Your task to perform on an android device: change your default location settings in chrome Image 0: 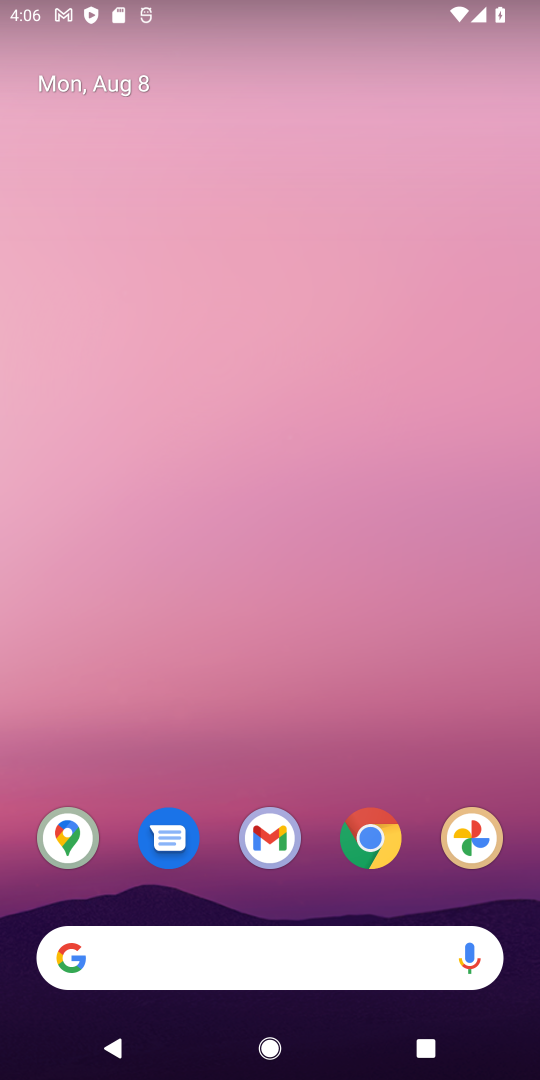
Step 0: click (370, 838)
Your task to perform on an android device: change your default location settings in chrome Image 1: 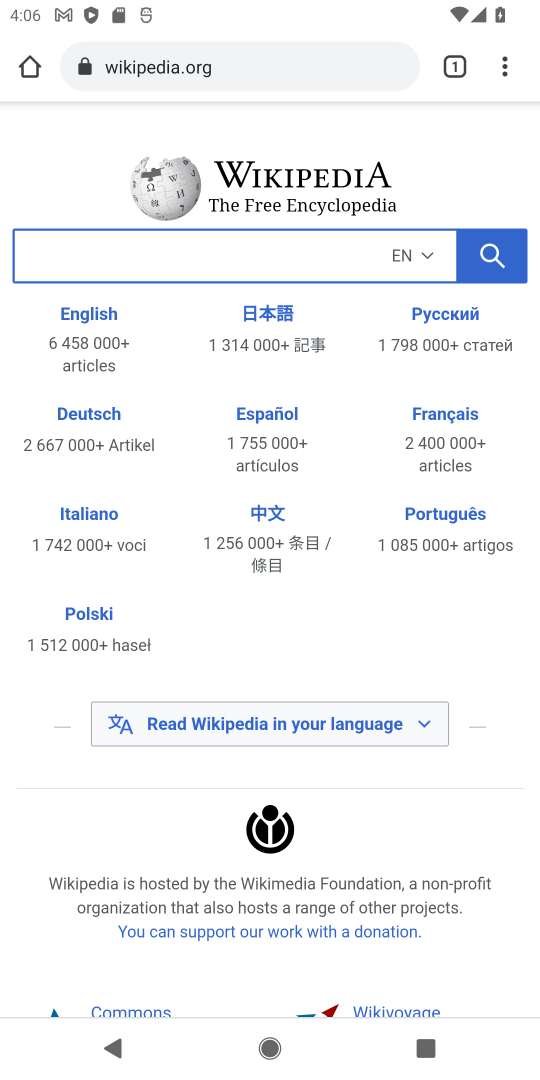
Step 1: click (507, 67)
Your task to perform on an android device: change your default location settings in chrome Image 2: 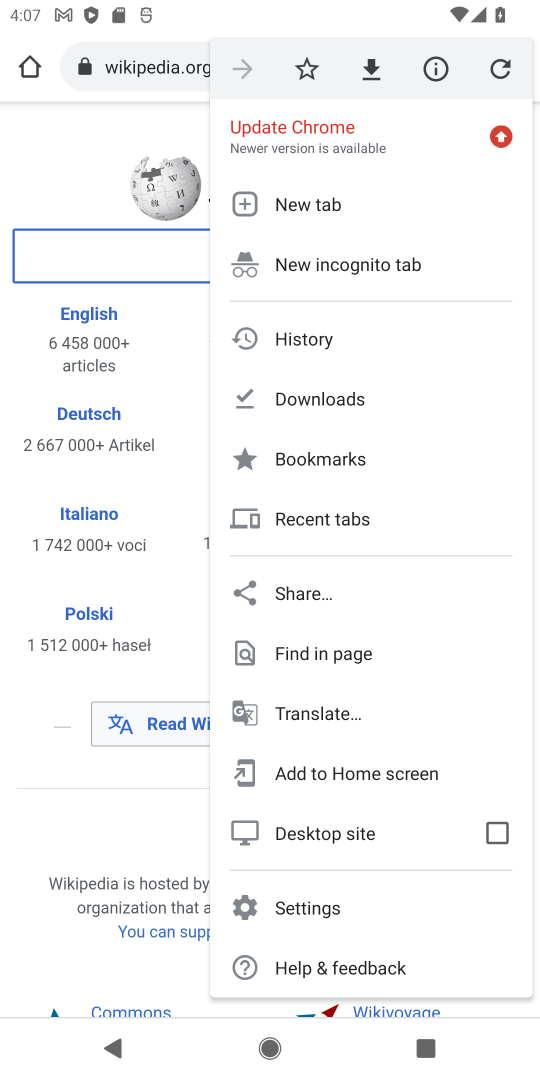
Step 2: click (306, 912)
Your task to perform on an android device: change your default location settings in chrome Image 3: 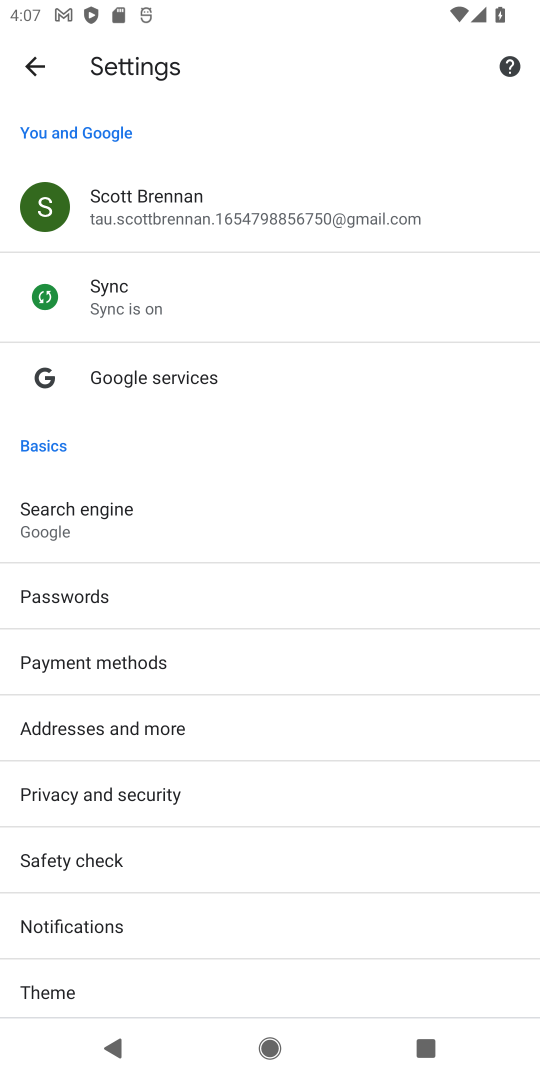
Step 3: drag from (129, 773) to (171, 682)
Your task to perform on an android device: change your default location settings in chrome Image 4: 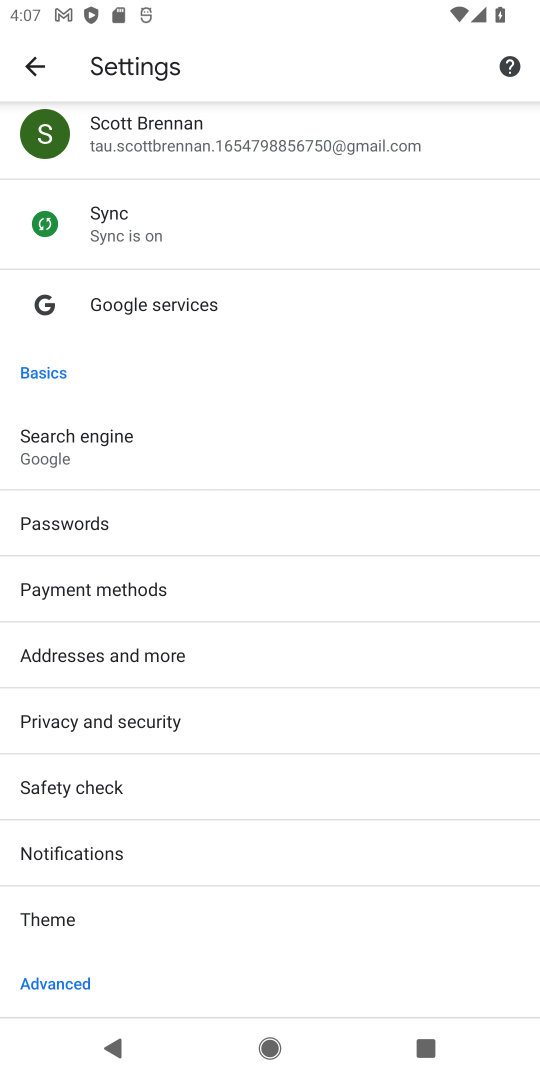
Step 4: drag from (180, 749) to (214, 657)
Your task to perform on an android device: change your default location settings in chrome Image 5: 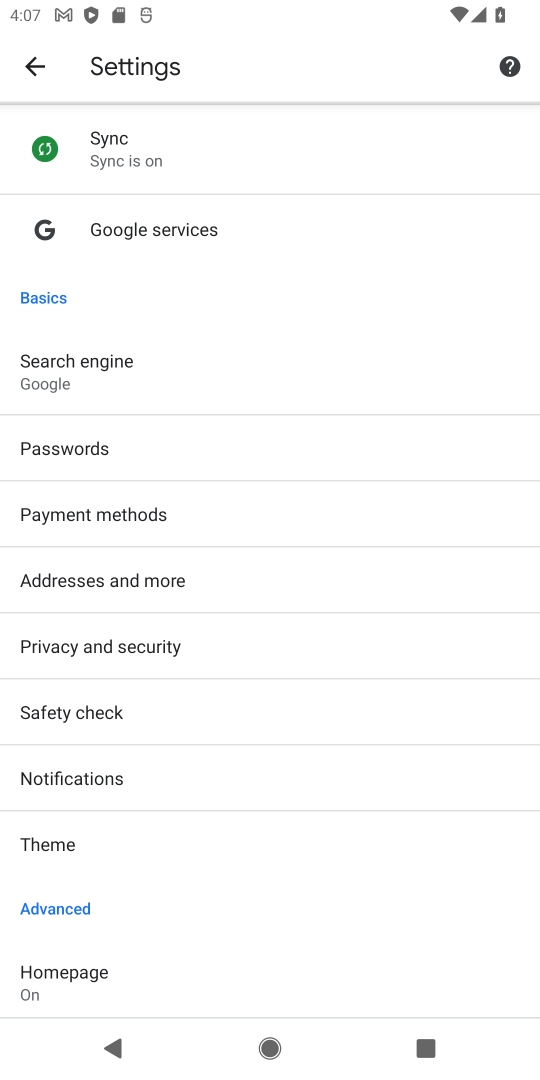
Step 5: drag from (178, 800) to (235, 689)
Your task to perform on an android device: change your default location settings in chrome Image 6: 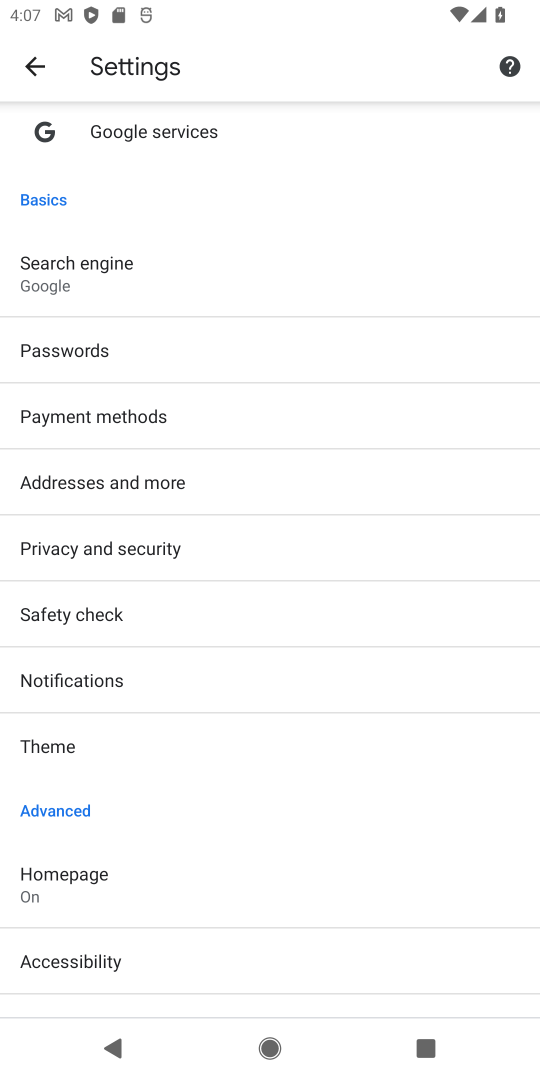
Step 6: drag from (168, 807) to (243, 673)
Your task to perform on an android device: change your default location settings in chrome Image 7: 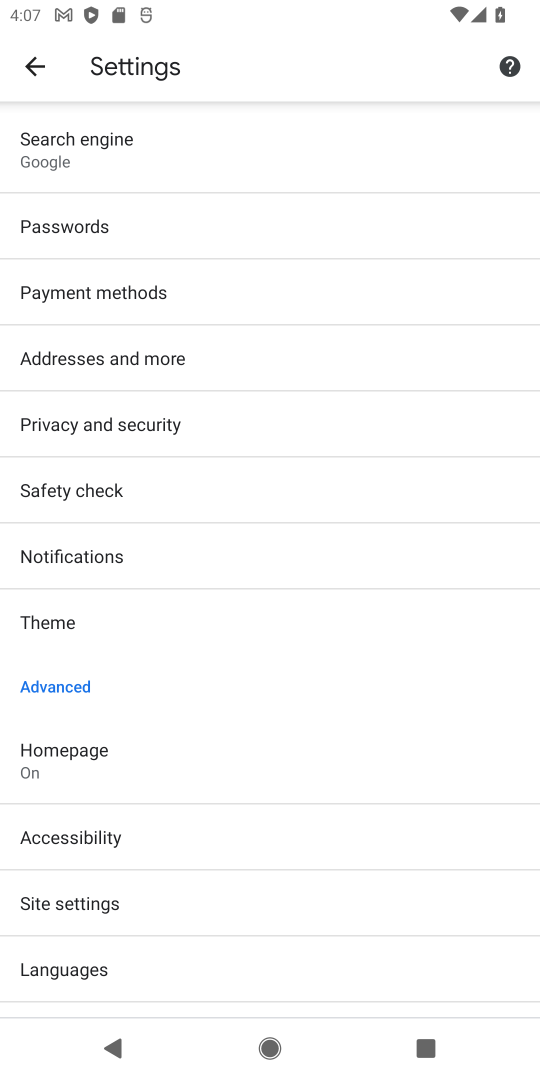
Step 7: drag from (176, 737) to (245, 619)
Your task to perform on an android device: change your default location settings in chrome Image 8: 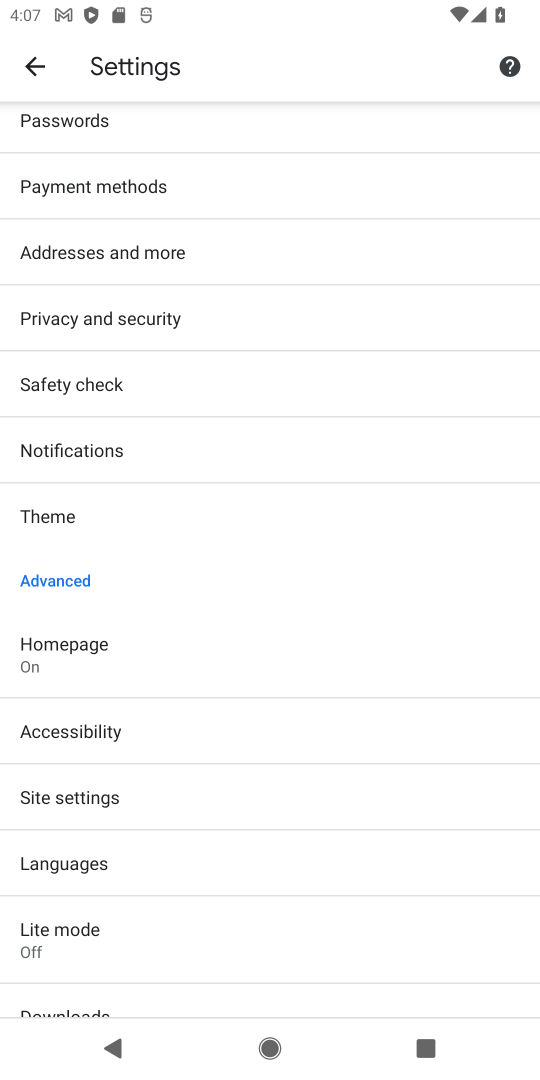
Step 8: click (86, 798)
Your task to perform on an android device: change your default location settings in chrome Image 9: 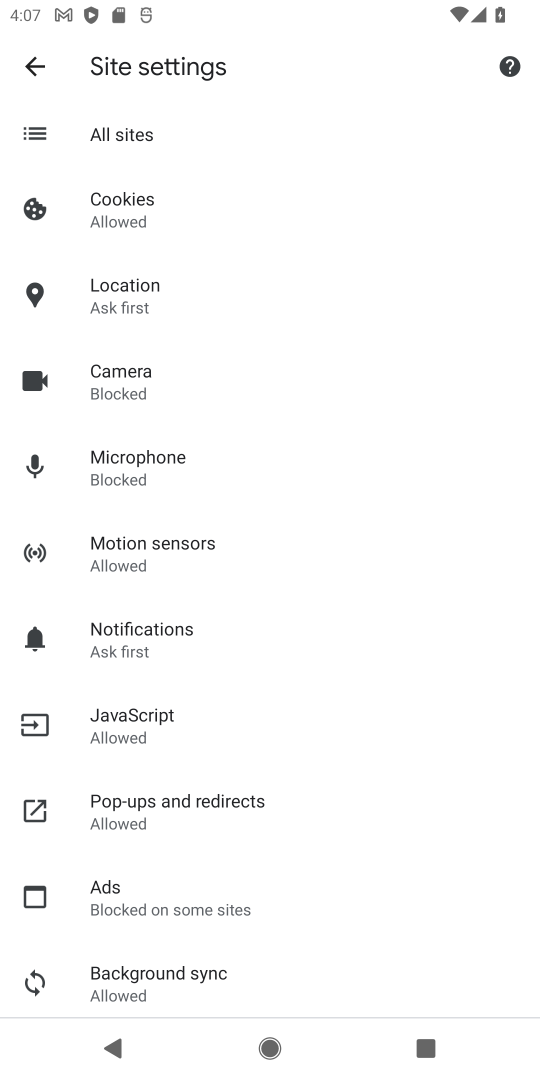
Step 9: click (132, 307)
Your task to perform on an android device: change your default location settings in chrome Image 10: 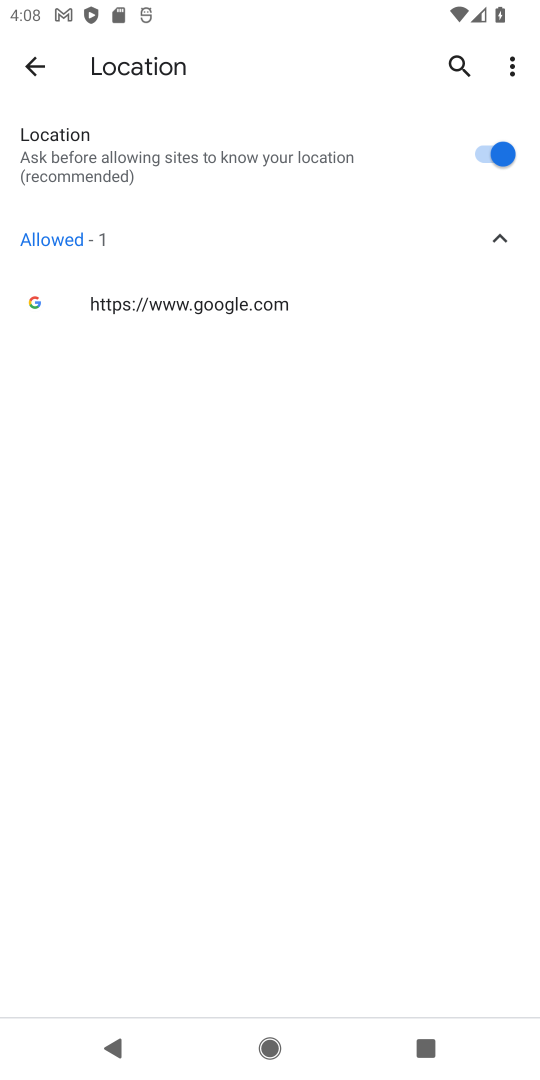
Step 10: click (492, 159)
Your task to perform on an android device: change your default location settings in chrome Image 11: 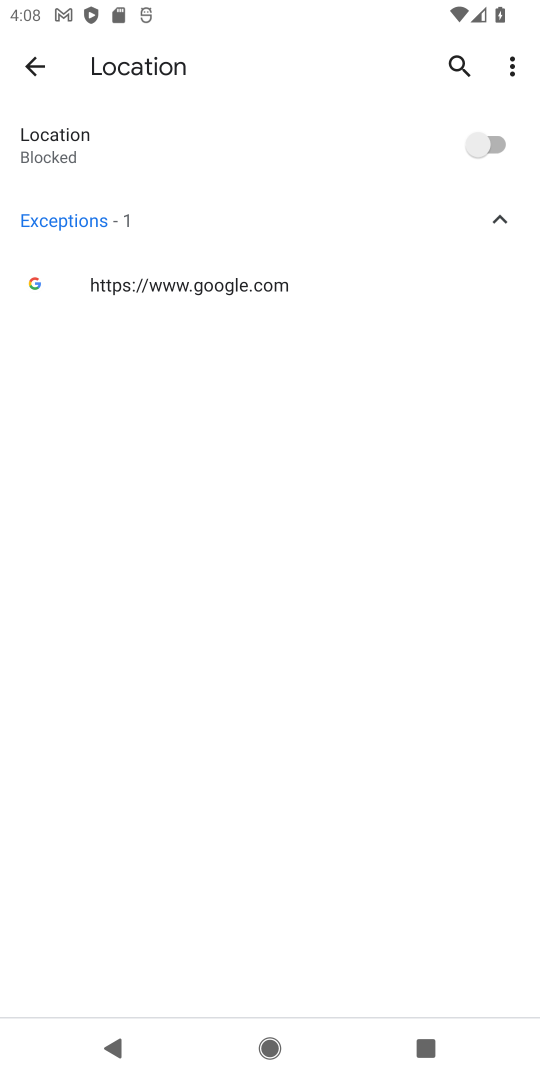
Step 11: task complete